Your task to perform on an android device: Go to location settings Image 0: 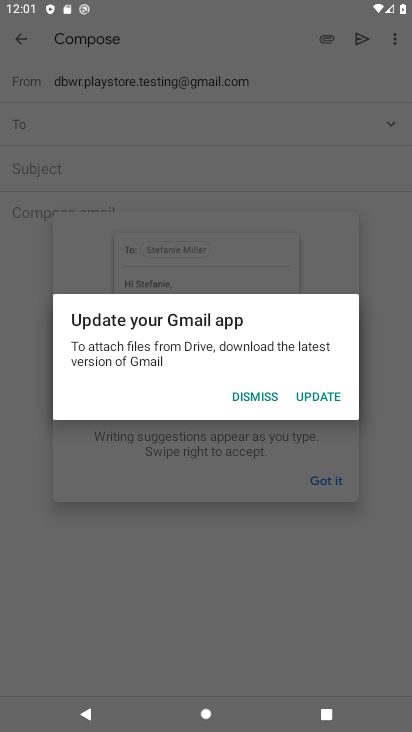
Step 0: press home button
Your task to perform on an android device: Go to location settings Image 1: 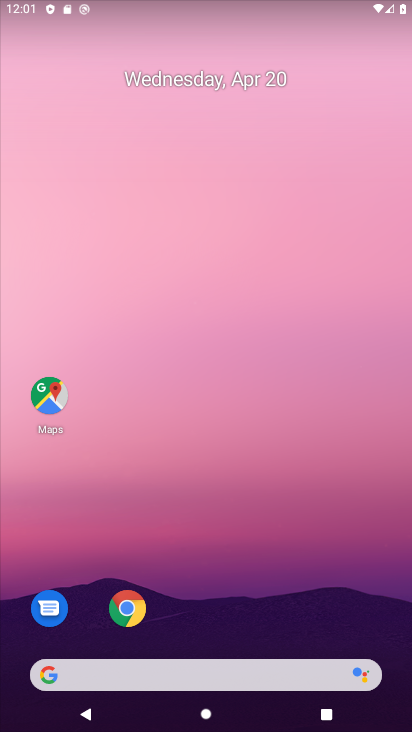
Step 1: click (291, 53)
Your task to perform on an android device: Go to location settings Image 2: 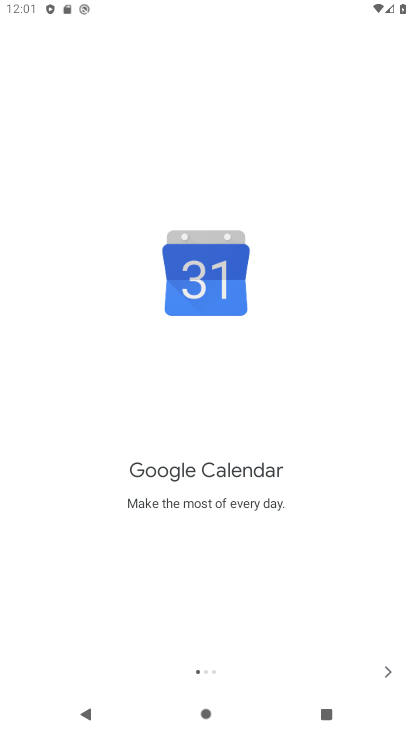
Step 2: press home button
Your task to perform on an android device: Go to location settings Image 3: 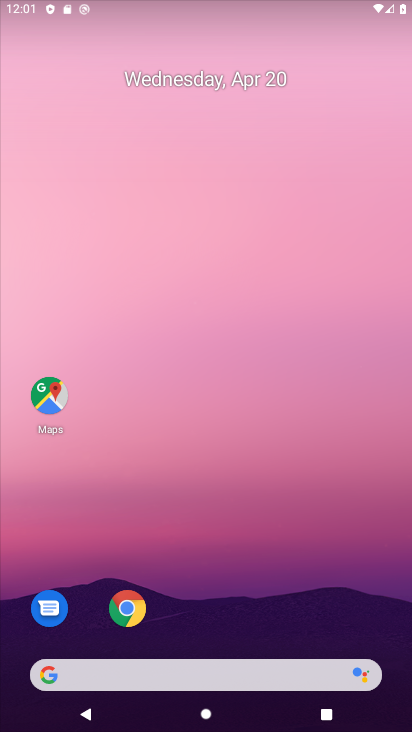
Step 3: drag from (268, 549) to (261, 44)
Your task to perform on an android device: Go to location settings Image 4: 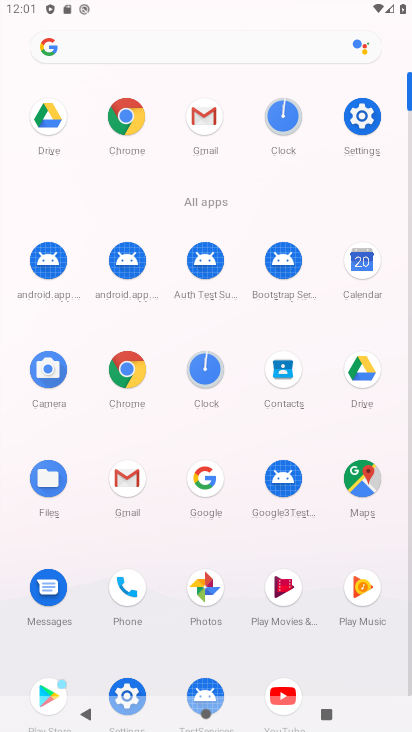
Step 4: click (361, 120)
Your task to perform on an android device: Go to location settings Image 5: 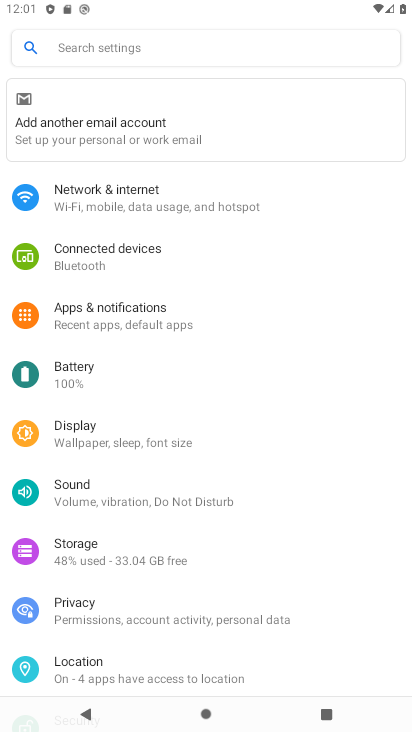
Step 5: click (123, 668)
Your task to perform on an android device: Go to location settings Image 6: 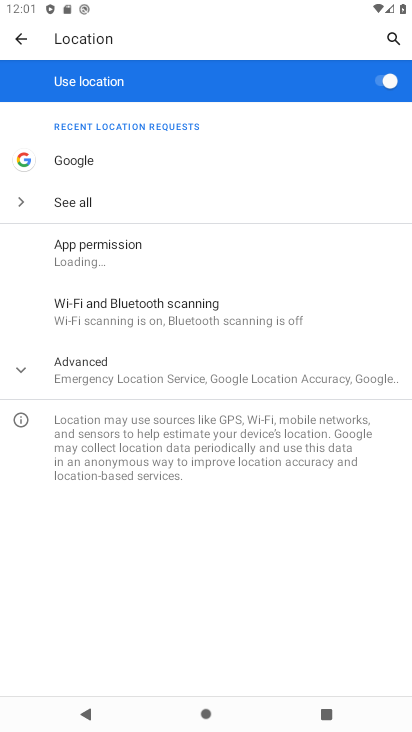
Step 6: task complete